Your task to perform on an android device: turn notification dots off Image 0: 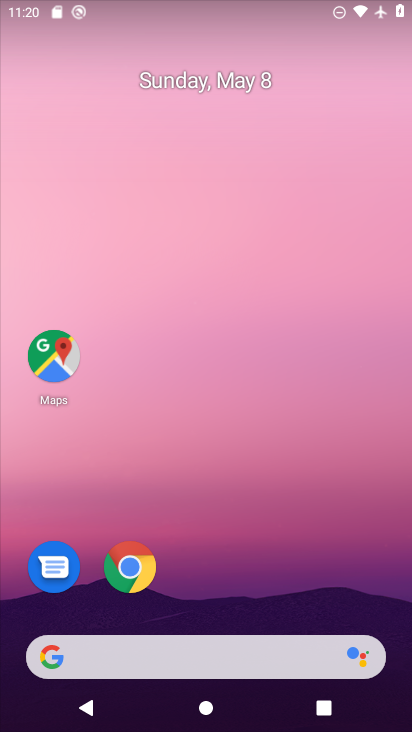
Step 0: drag from (267, 577) to (192, 174)
Your task to perform on an android device: turn notification dots off Image 1: 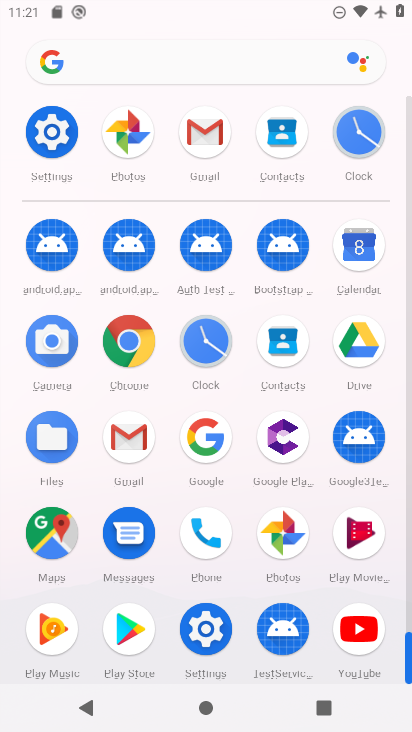
Step 1: click (55, 166)
Your task to perform on an android device: turn notification dots off Image 2: 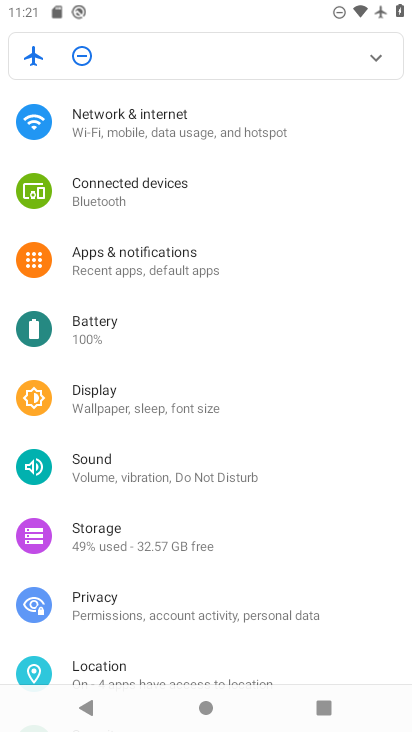
Step 2: click (143, 263)
Your task to perform on an android device: turn notification dots off Image 3: 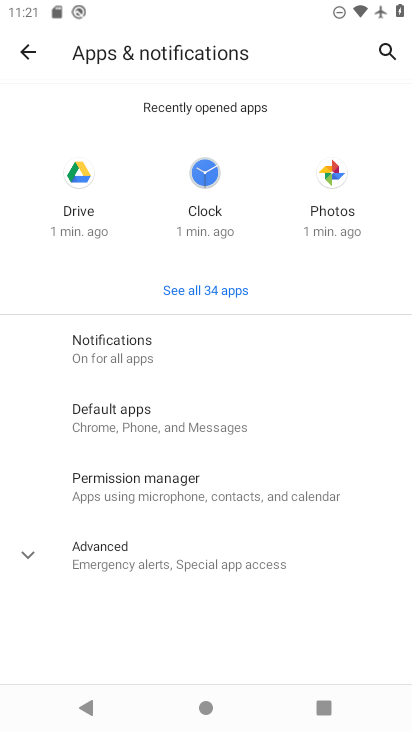
Step 3: click (135, 360)
Your task to perform on an android device: turn notification dots off Image 4: 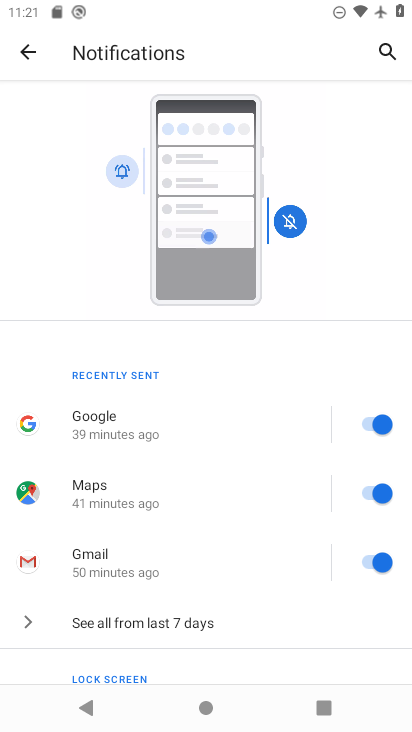
Step 4: drag from (311, 595) to (267, 266)
Your task to perform on an android device: turn notification dots off Image 5: 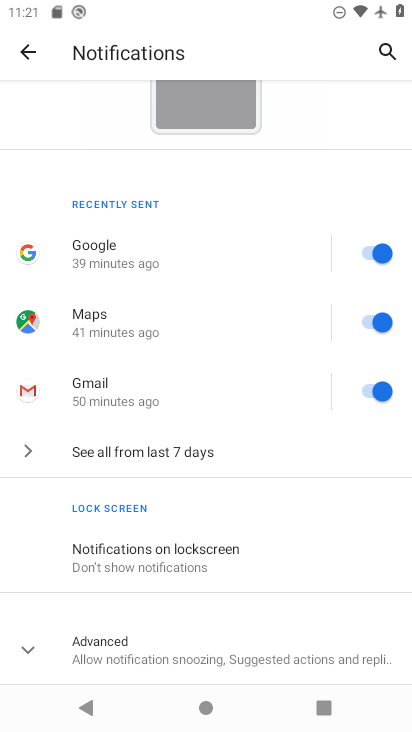
Step 5: click (136, 565)
Your task to perform on an android device: turn notification dots off Image 6: 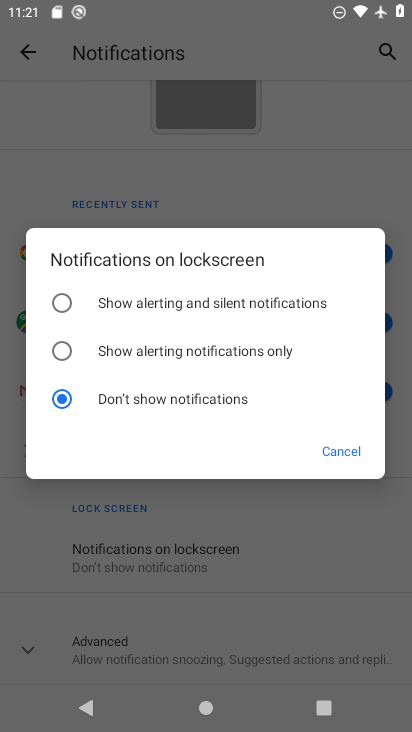
Step 6: click (329, 454)
Your task to perform on an android device: turn notification dots off Image 7: 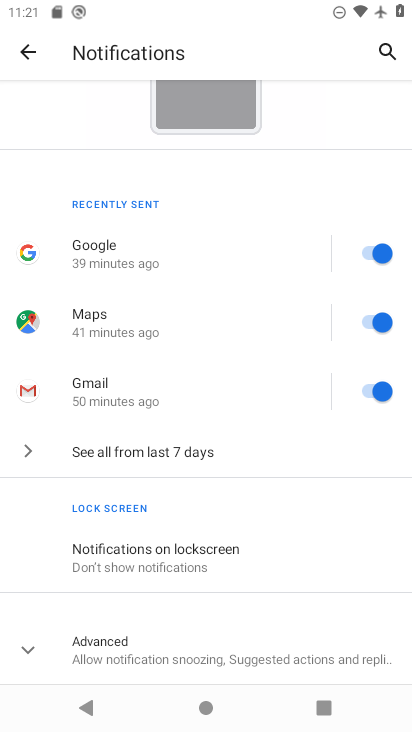
Step 7: click (144, 653)
Your task to perform on an android device: turn notification dots off Image 8: 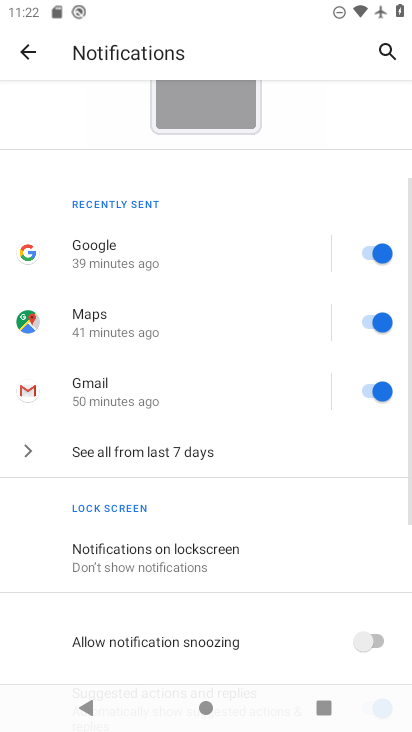
Step 8: drag from (188, 642) to (192, 320)
Your task to perform on an android device: turn notification dots off Image 9: 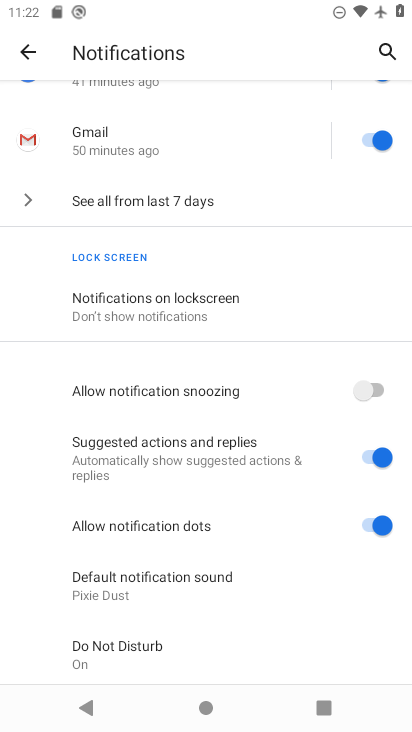
Step 9: drag from (250, 607) to (217, 303)
Your task to perform on an android device: turn notification dots off Image 10: 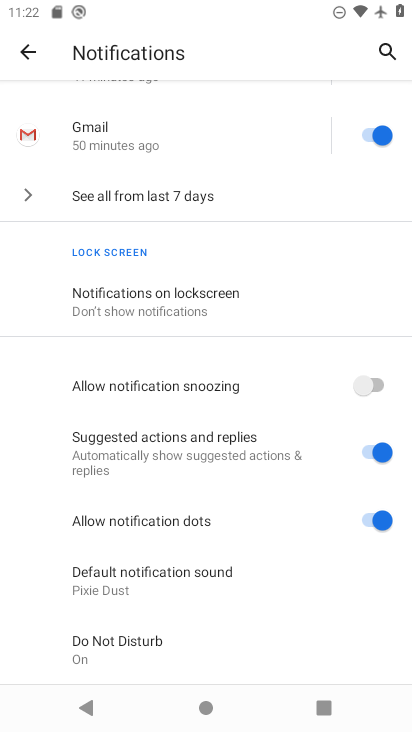
Step 10: click (369, 527)
Your task to perform on an android device: turn notification dots off Image 11: 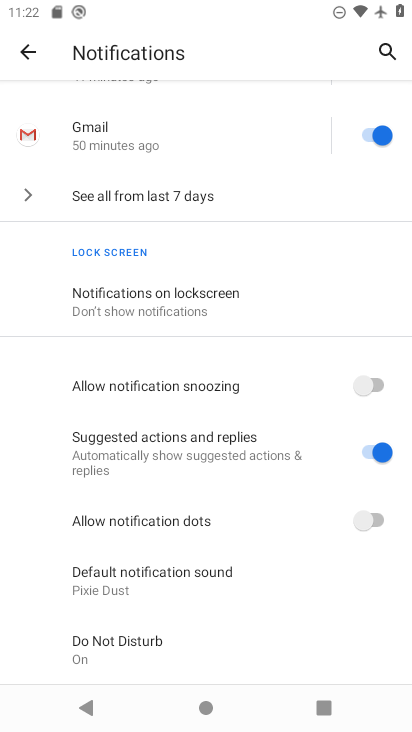
Step 11: task complete